Your task to perform on an android device: Open calendar and show me the first week of next month Image 0: 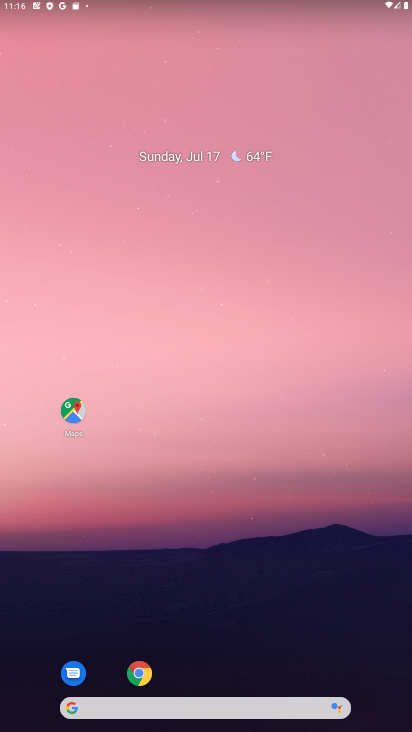
Step 0: drag from (201, 688) to (257, 81)
Your task to perform on an android device: Open calendar and show me the first week of next month Image 1: 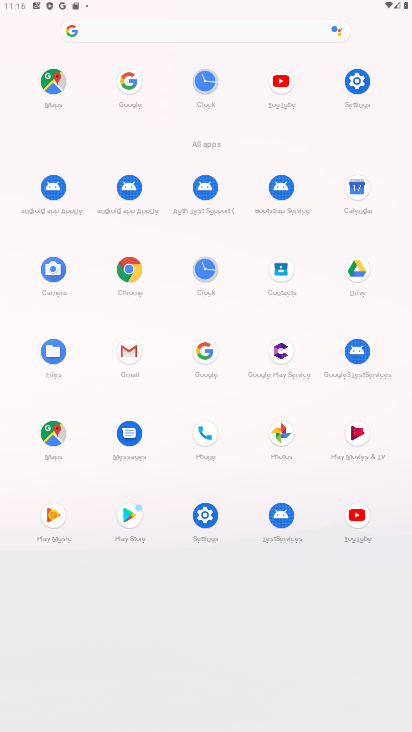
Step 1: click (358, 190)
Your task to perform on an android device: Open calendar and show me the first week of next month Image 2: 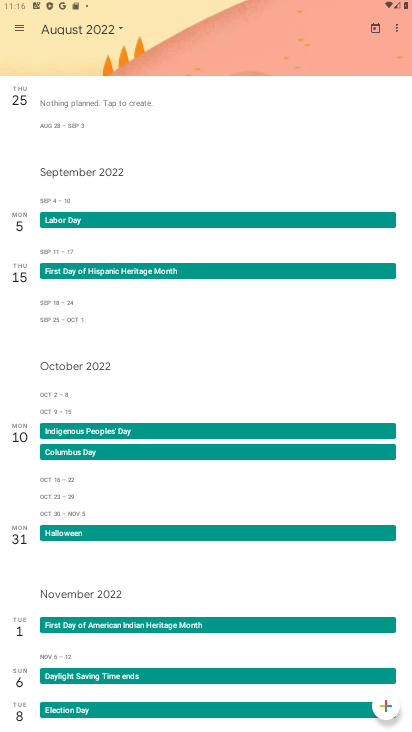
Step 2: click (120, 25)
Your task to perform on an android device: Open calendar and show me the first week of next month Image 3: 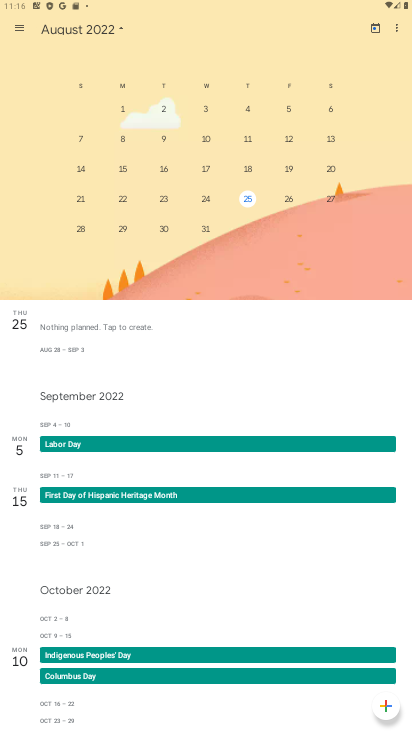
Step 3: click (165, 112)
Your task to perform on an android device: Open calendar and show me the first week of next month Image 4: 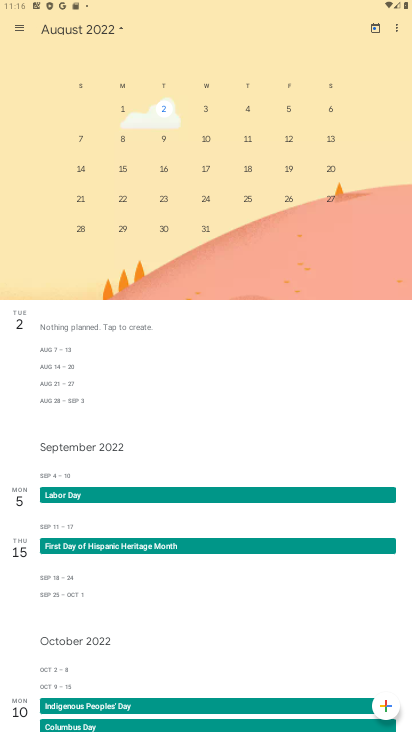
Step 4: task complete